Your task to perform on an android device: Open Youtube and go to the subscriptions tab Image 0: 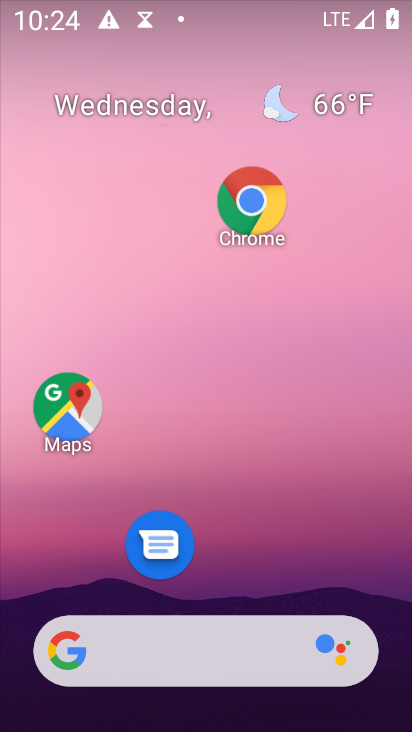
Step 0: drag from (243, 569) to (214, 192)
Your task to perform on an android device: Open Youtube and go to the subscriptions tab Image 1: 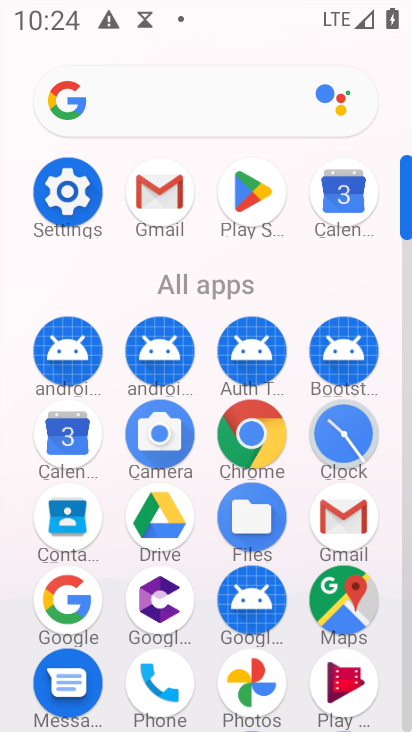
Step 1: drag from (191, 564) to (163, 327)
Your task to perform on an android device: Open Youtube and go to the subscriptions tab Image 2: 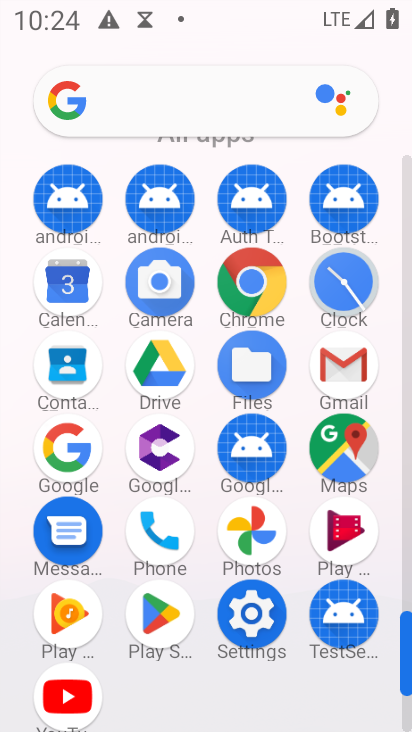
Step 2: click (65, 712)
Your task to perform on an android device: Open Youtube and go to the subscriptions tab Image 3: 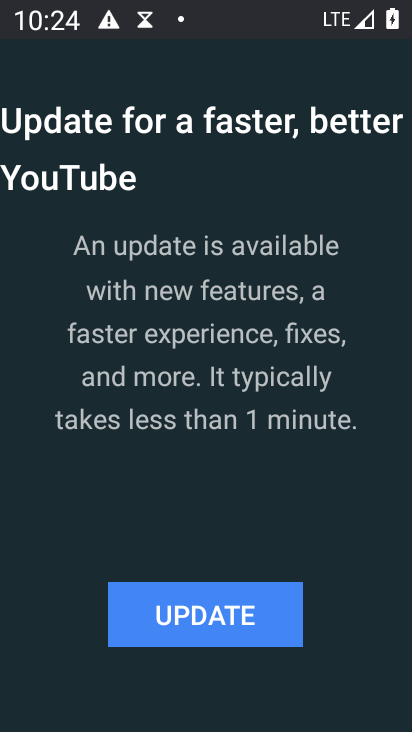
Step 3: click (222, 609)
Your task to perform on an android device: Open Youtube and go to the subscriptions tab Image 4: 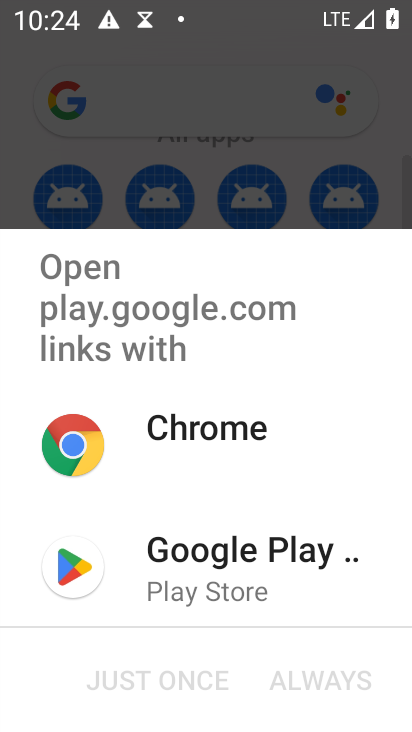
Step 4: click (149, 600)
Your task to perform on an android device: Open Youtube and go to the subscriptions tab Image 5: 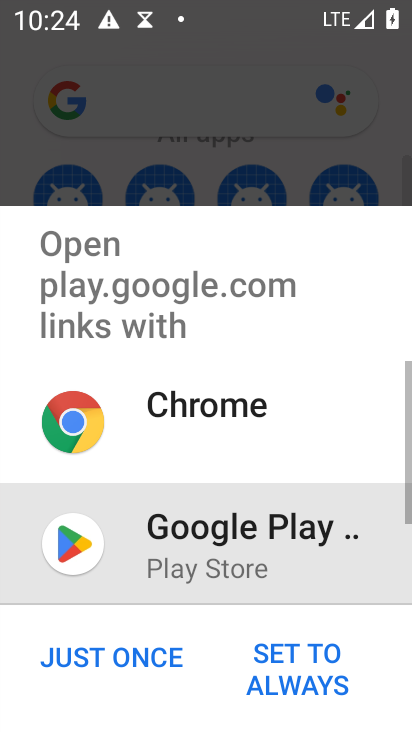
Step 5: click (86, 680)
Your task to perform on an android device: Open Youtube and go to the subscriptions tab Image 6: 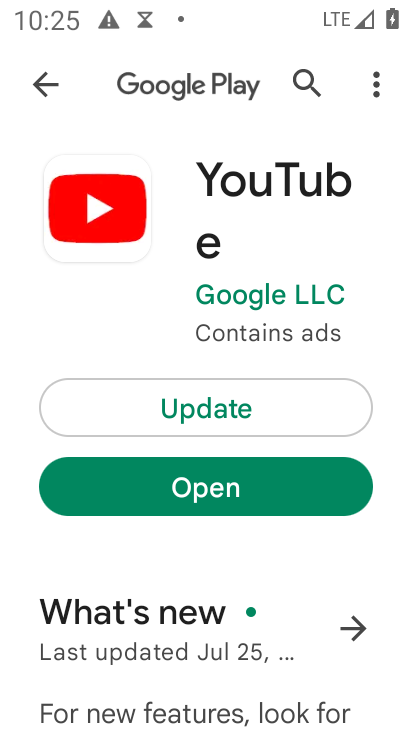
Step 6: click (211, 408)
Your task to perform on an android device: Open Youtube and go to the subscriptions tab Image 7: 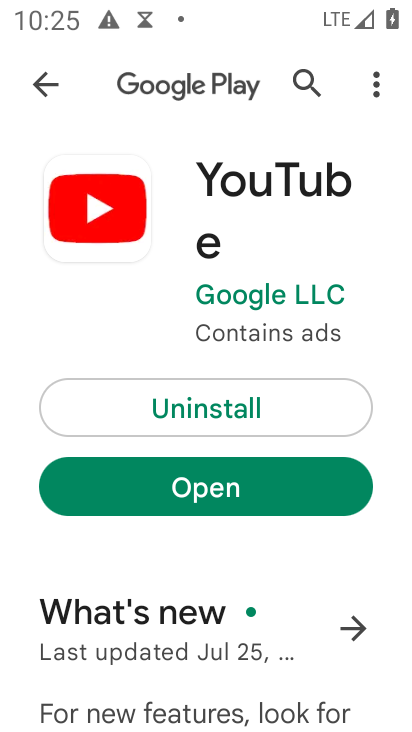
Step 7: click (271, 483)
Your task to perform on an android device: Open Youtube and go to the subscriptions tab Image 8: 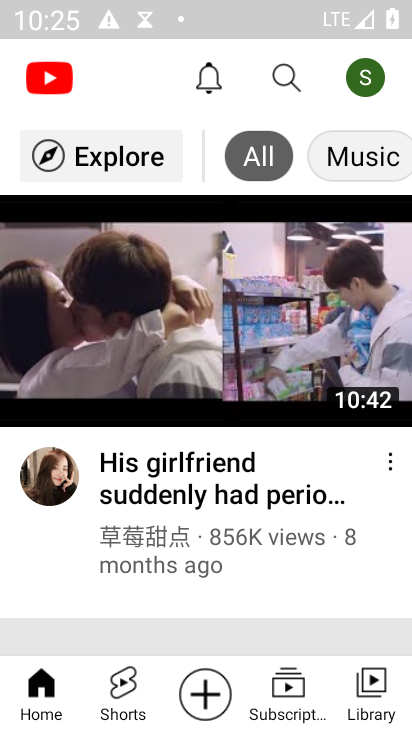
Step 8: click (289, 696)
Your task to perform on an android device: Open Youtube and go to the subscriptions tab Image 9: 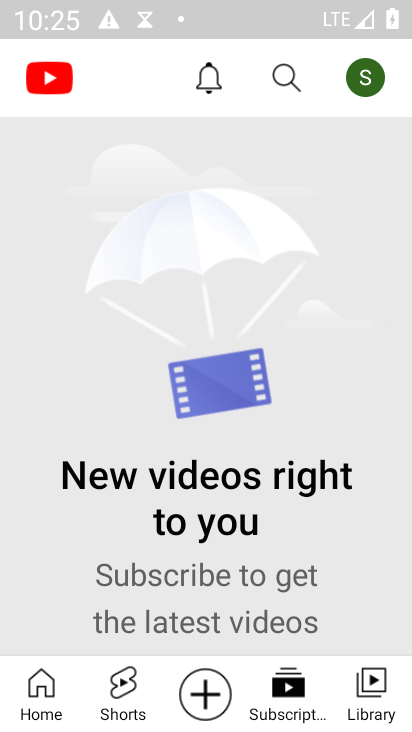
Step 9: task complete